Your task to perform on an android device: allow cookies in the chrome app Image 0: 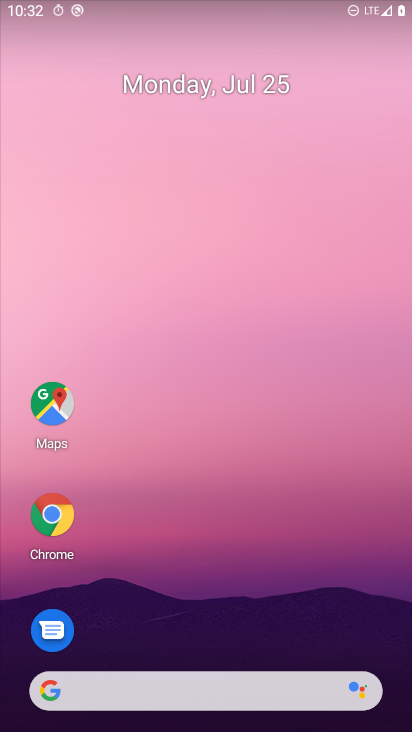
Step 0: click (46, 522)
Your task to perform on an android device: allow cookies in the chrome app Image 1: 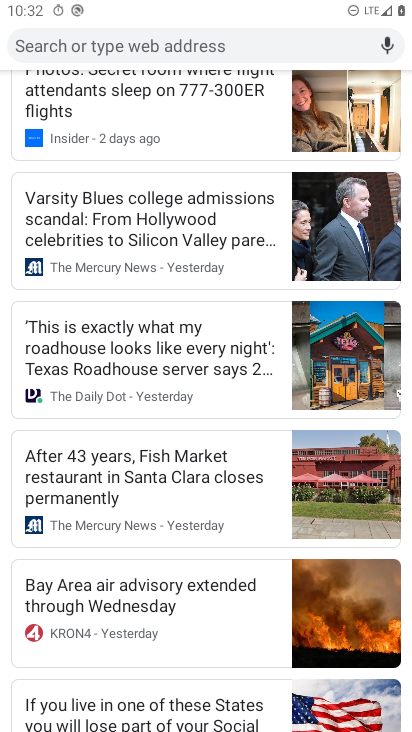
Step 1: click (64, 50)
Your task to perform on an android device: allow cookies in the chrome app Image 2: 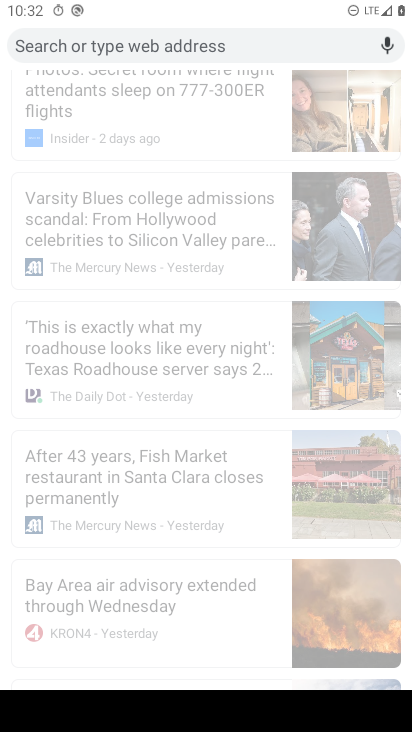
Step 2: click (62, 30)
Your task to perform on an android device: allow cookies in the chrome app Image 3: 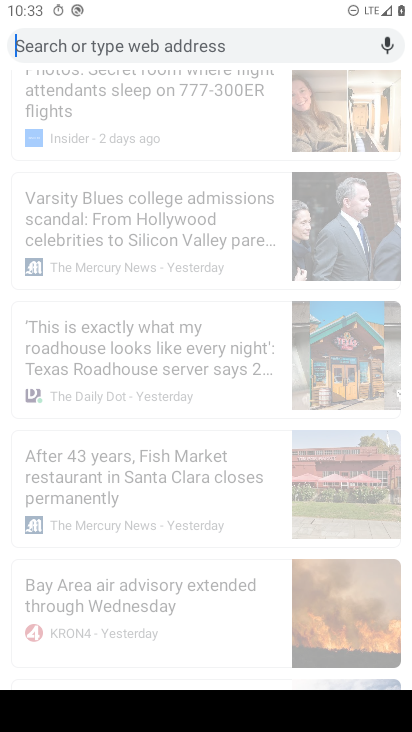
Step 3: click (30, 46)
Your task to perform on an android device: allow cookies in the chrome app Image 4: 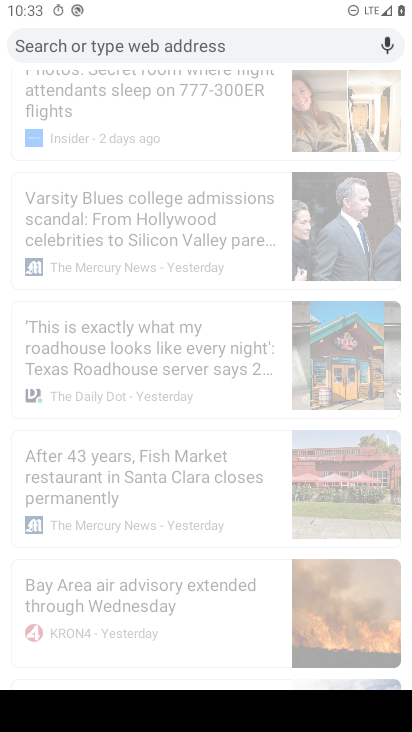
Step 4: task complete